Your task to perform on an android device: turn smart compose on in the gmail app Image 0: 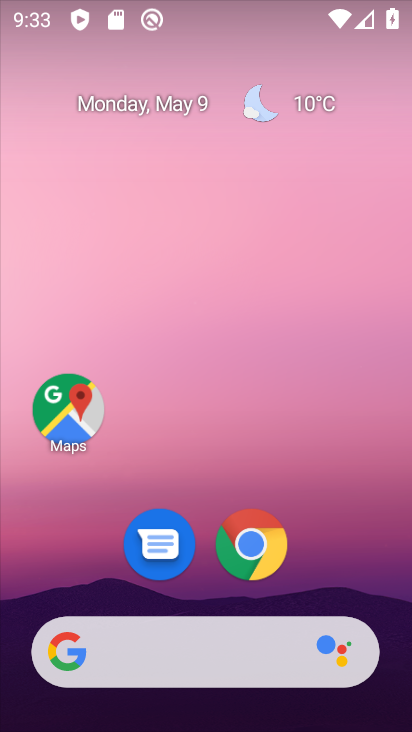
Step 0: drag from (383, 450) to (376, 290)
Your task to perform on an android device: turn smart compose on in the gmail app Image 1: 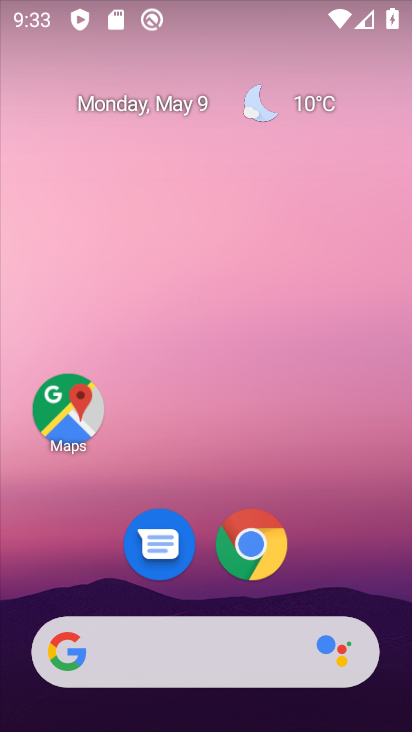
Step 1: drag from (401, 583) to (376, 236)
Your task to perform on an android device: turn smart compose on in the gmail app Image 2: 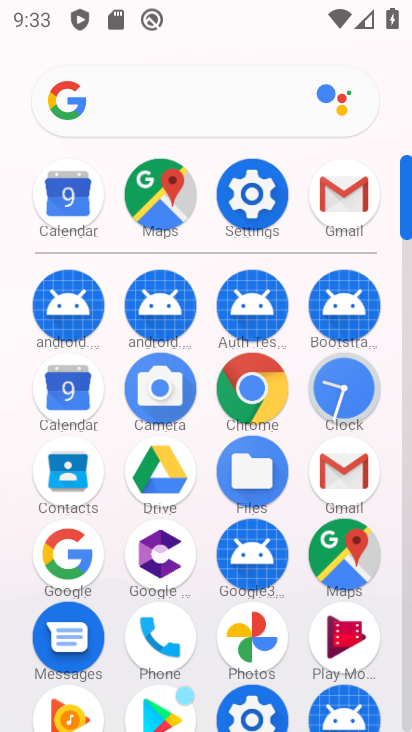
Step 2: click (346, 464)
Your task to perform on an android device: turn smart compose on in the gmail app Image 3: 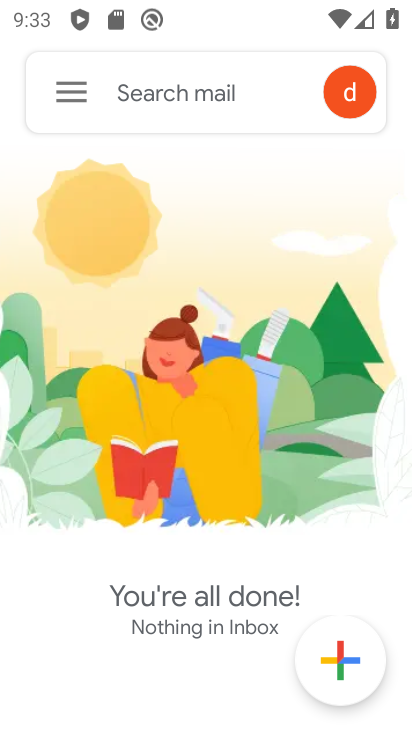
Step 3: click (66, 91)
Your task to perform on an android device: turn smart compose on in the gmail app Image 4: 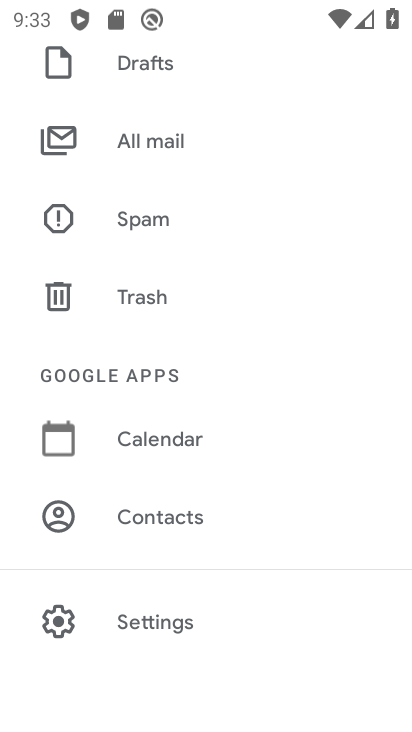
Step 4: drag from (341, 560) to (345, 326)
Your task to perform on an android device: turn smart compose on in the gmail app Image 5: 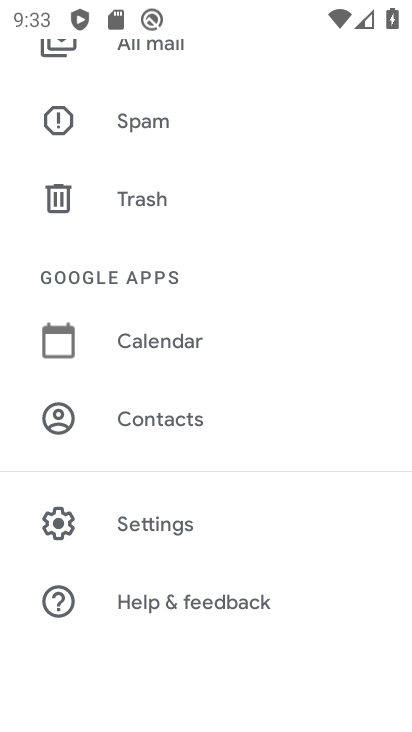
Step 5: click (169, 524)
Your task to perform on an android device: turn smart compose on in the gmail app Image 6: 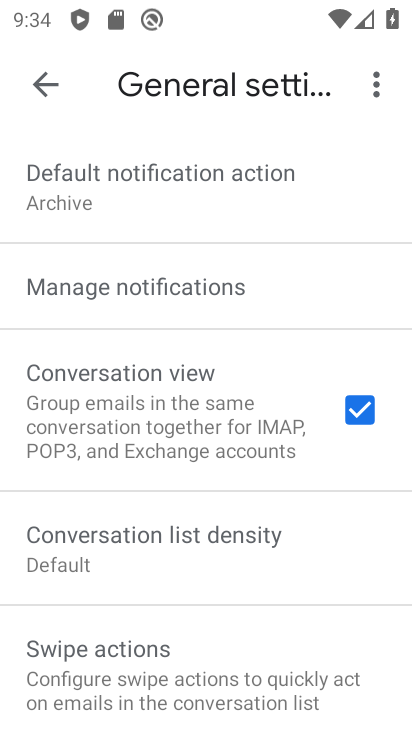
Step 6: drag from (246, 634) to (250, 346)
Your task to perform on an android device: turn smart compose on in the gmail app Image 7: 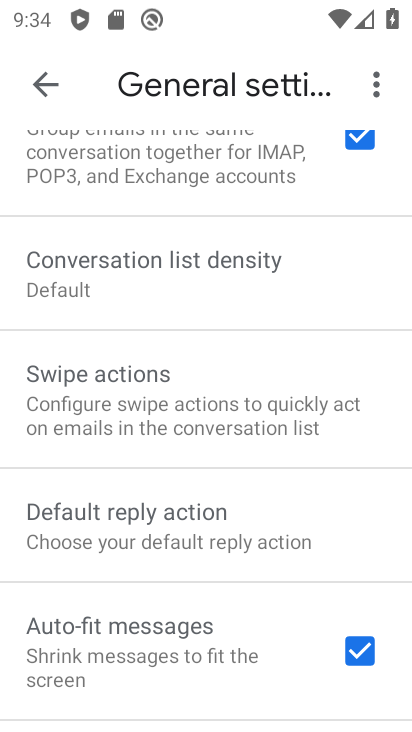
Step 7: drag from (210, 677) to (227, 392)
Your task to perform on an android device: turn smart compose on in the gmail app Image 8: 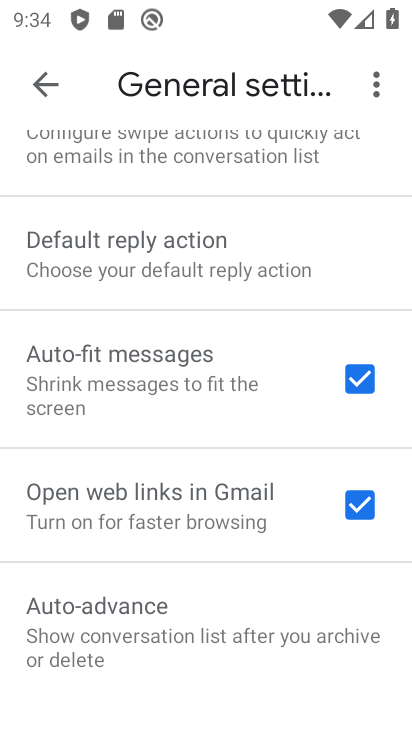
Step 8: drag from (166, 662) to (188, 517)
Your task to perform on an android device: turn smart compose on in the gmail app Image 9: 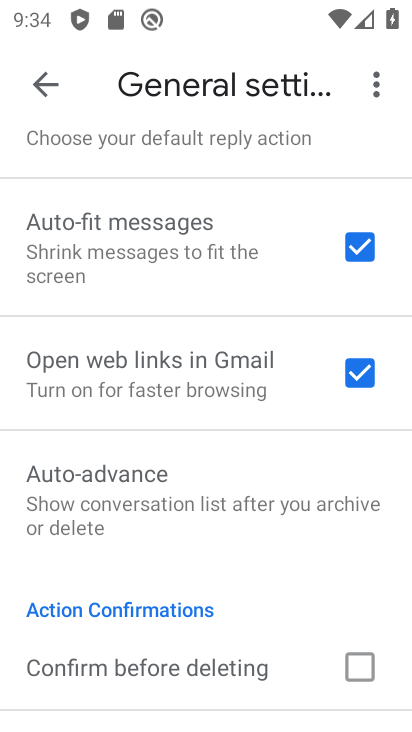
Step 9: drag from (189, 585) to (236, 327)
Your task to perform on an android device: turn smart compose on in the gmail app Image 10: 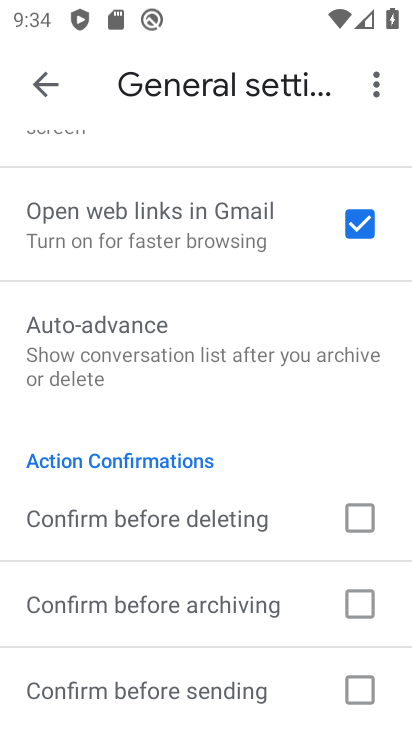
Step 10: click (33, 86)
Your task to perform on an android device: turn smart compose on in the gmail app Image 11: 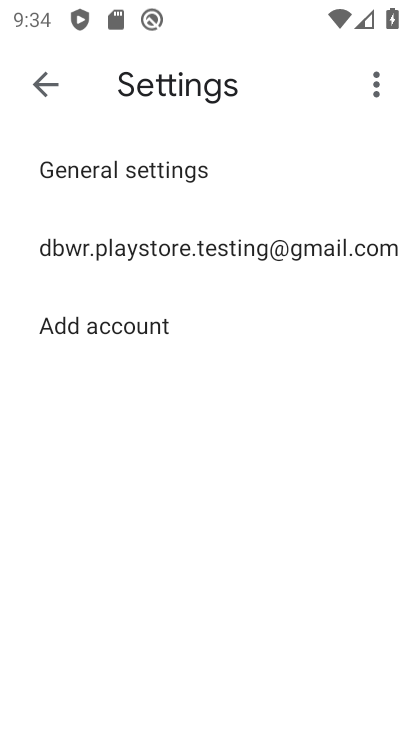
Step 11: click (69, 252)
Your task to perform on an android device: turn smart compose on in the gmail app Image 12: 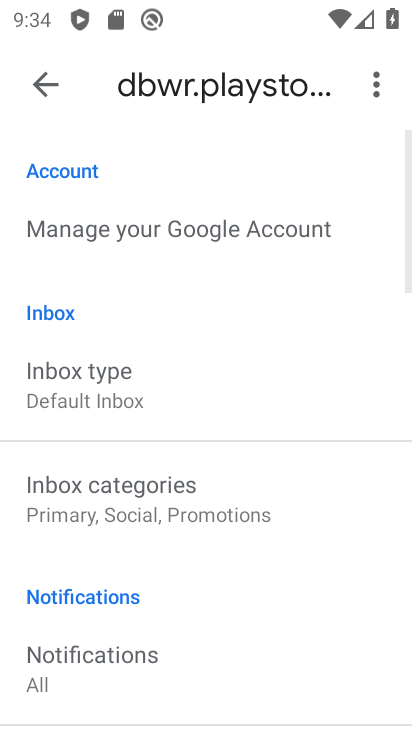
Step 12: task complete